Your task to perform on an android device: open app "Spotify" (install if not already installed) Image 0: 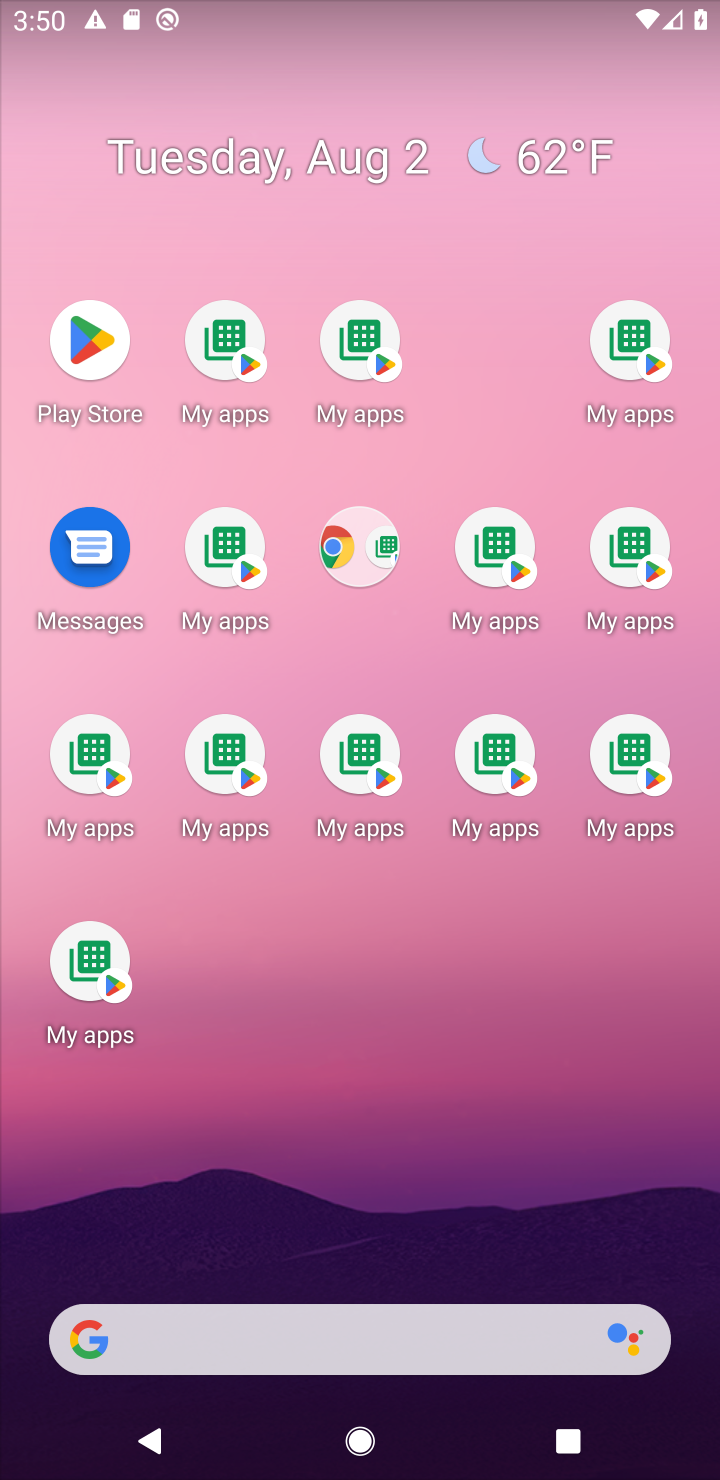
Step 0: click (31, 84)
Your task to perform on an android device: open app "Spotify" (install if not already installed) Image 1: 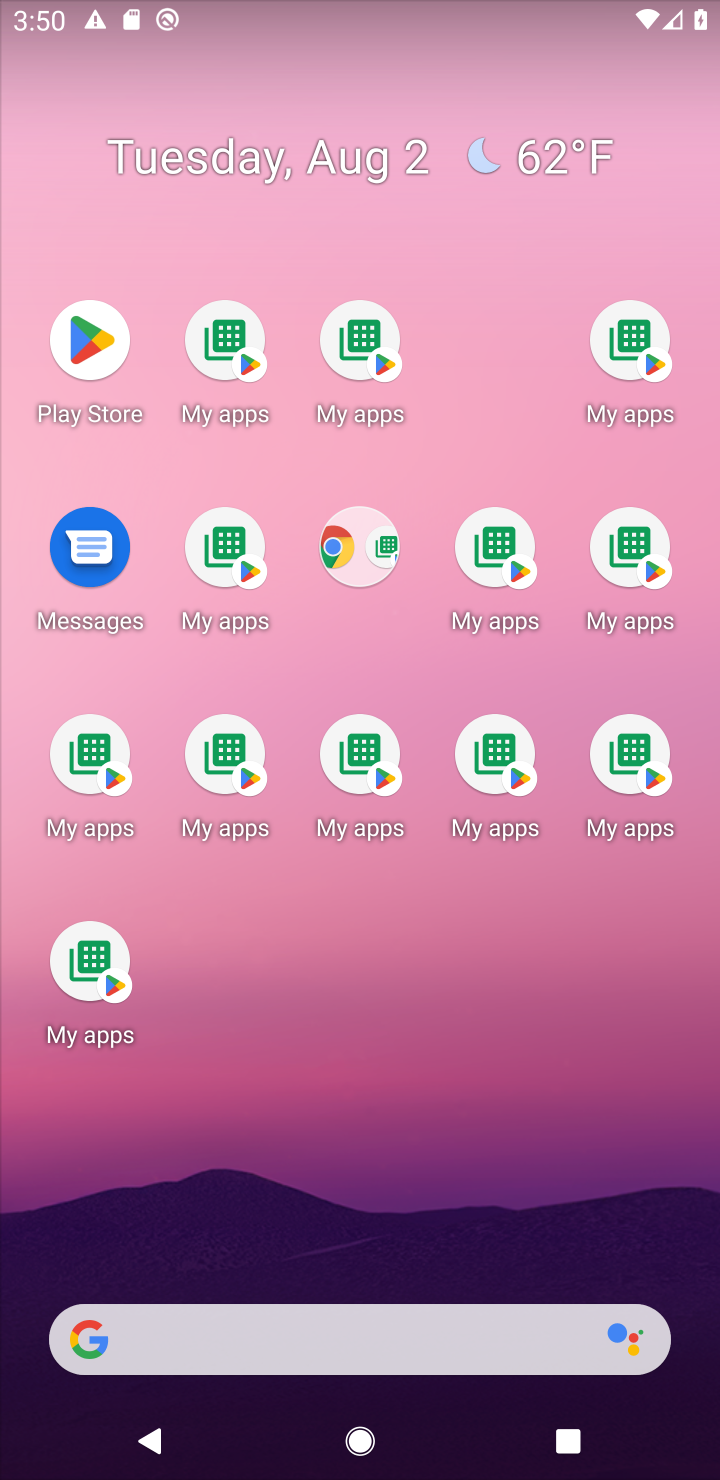
Step 1: drag from (222, 496) to (59, 456)
Your task to perform on an android device: open app "Spotify" (install if not already installed) Image 2: 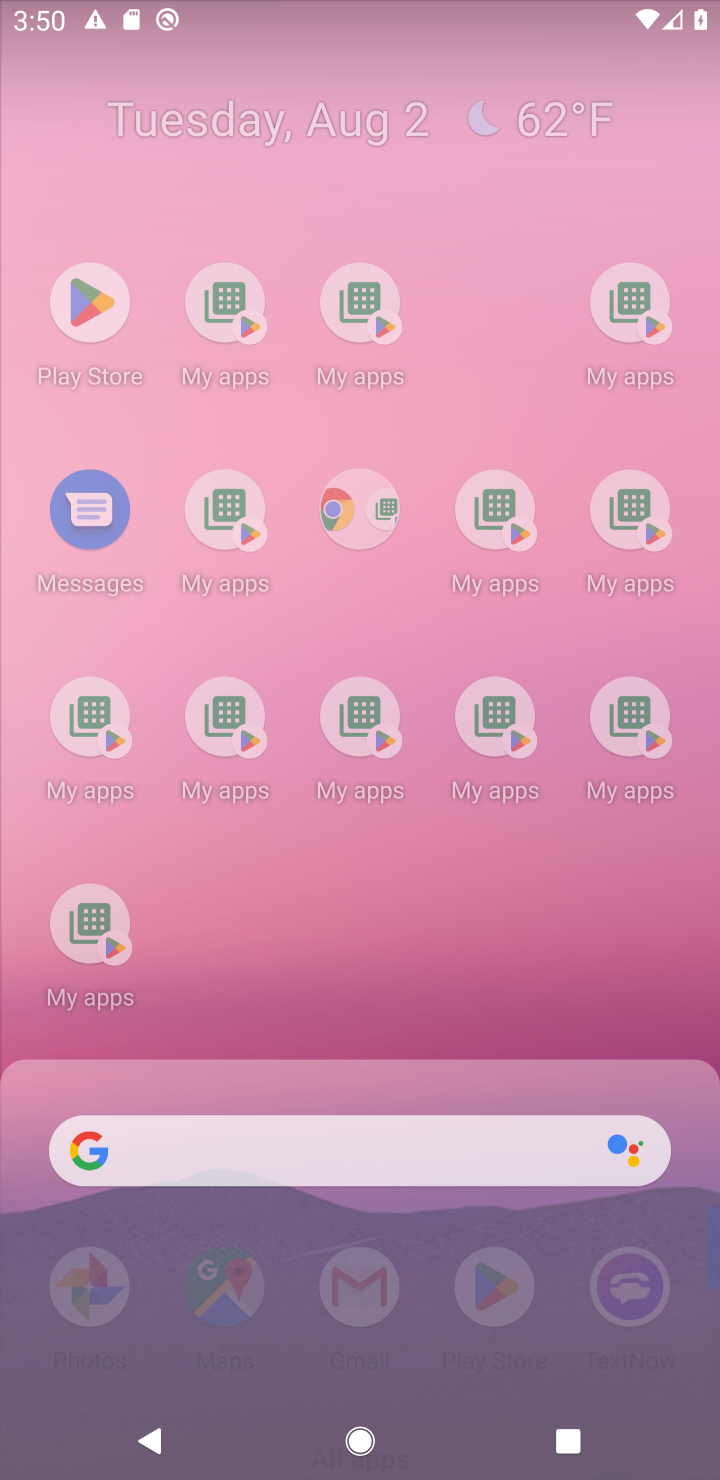
Step 2: click (208, 277)
Your task to perform on an android device: open app "Spotify" (install if not already installed) Image 3: 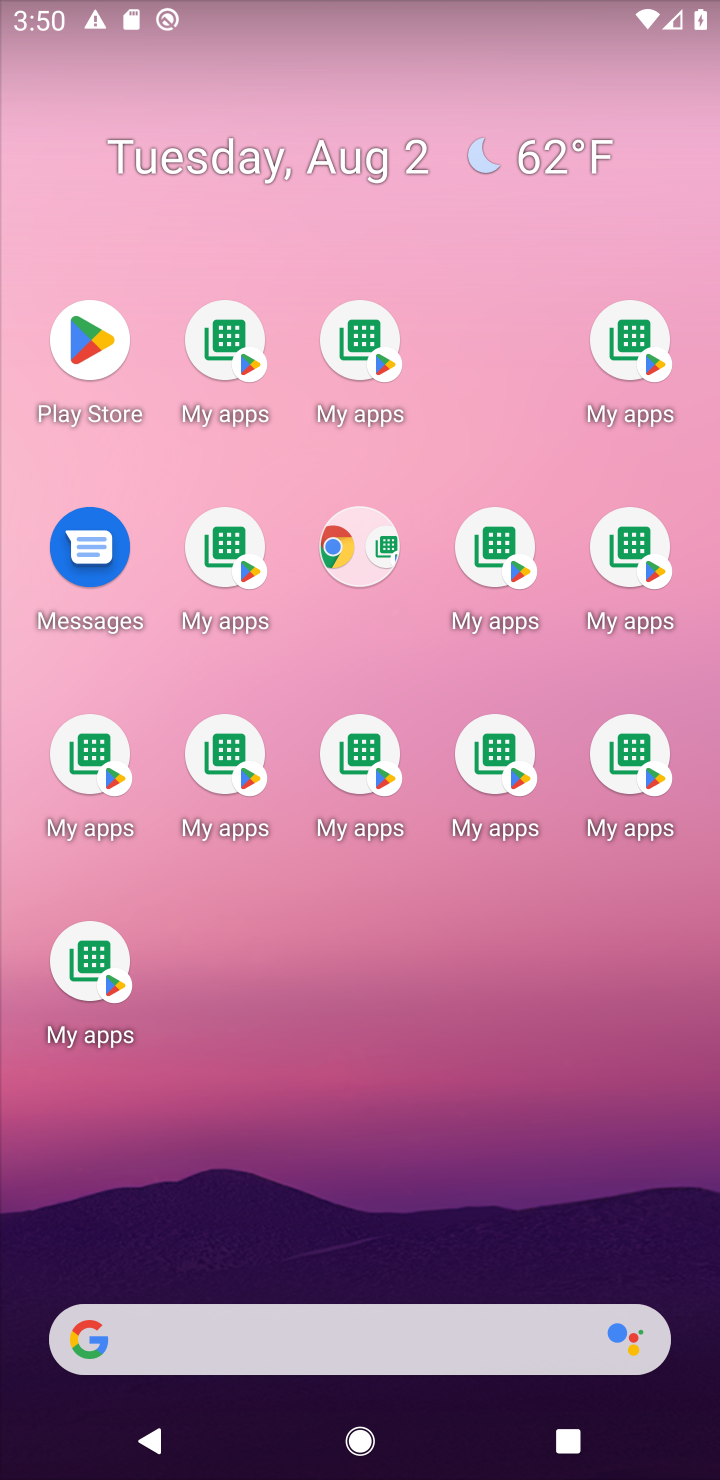
Step 3: drag from (120, 349) to (127, 437)
Your task to perform on an android device: open app "Spotify" (install if not already installed) Image 4: 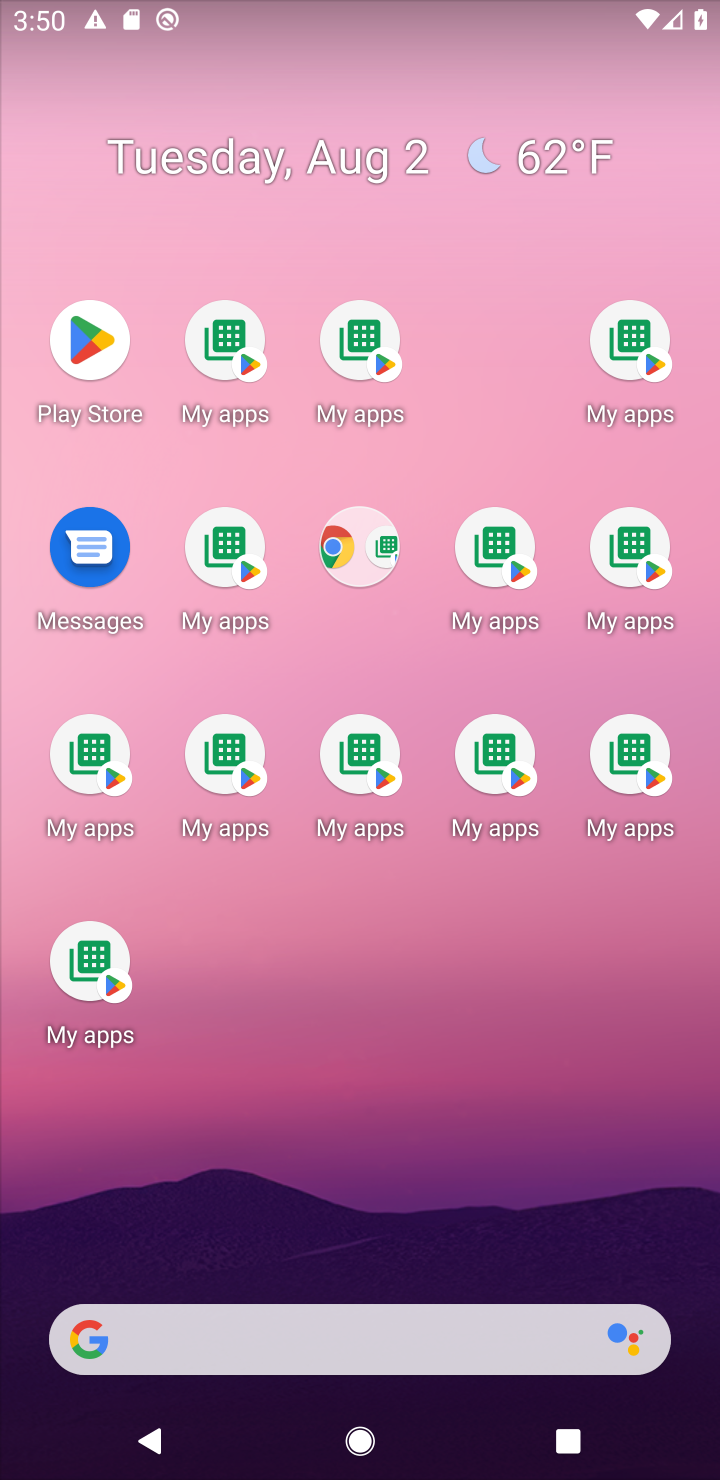
Step 4: click (108, 342)
Your task to perform on an android device: open app "Spotify" (install if not already installed) Image 5: 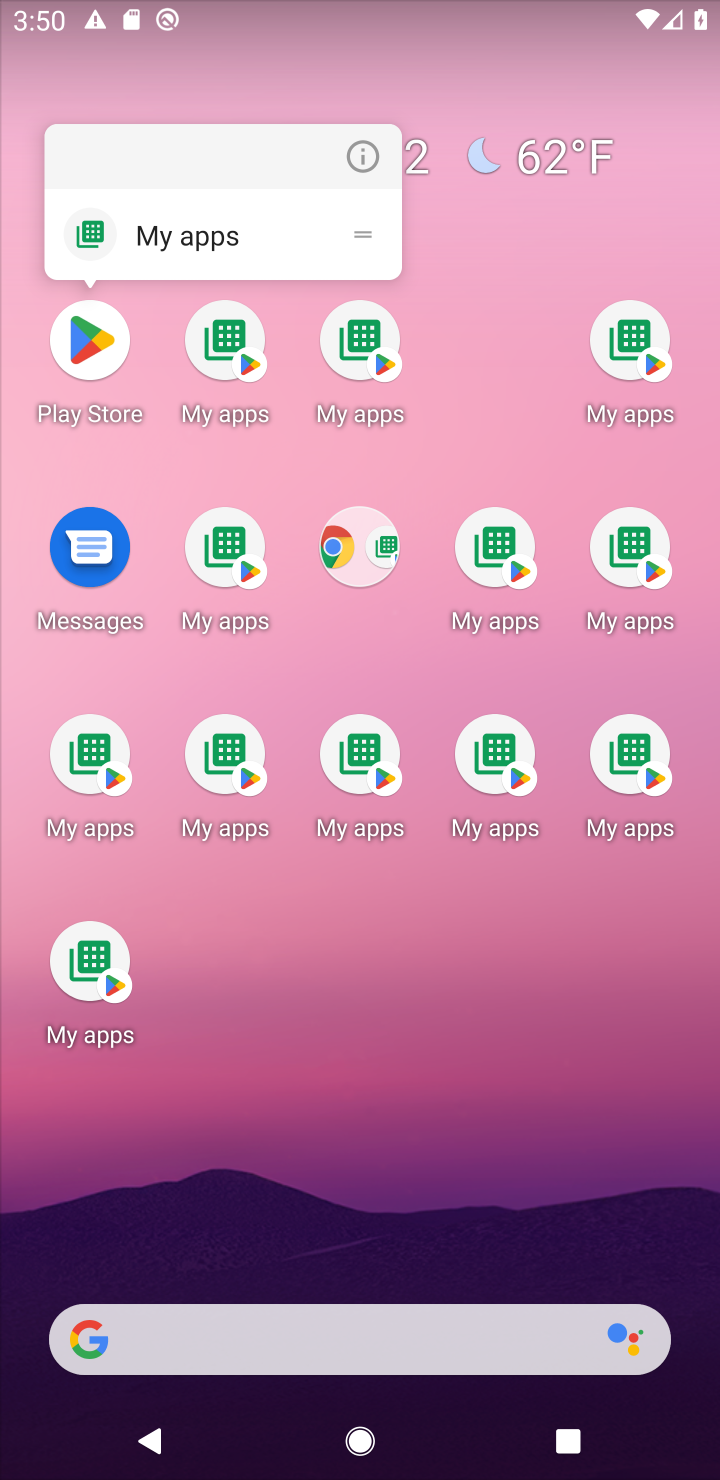
Step 5: click (64, 366)
Your task to perform on an android device: open app "Spotify" (install if not already installed) Image 6: 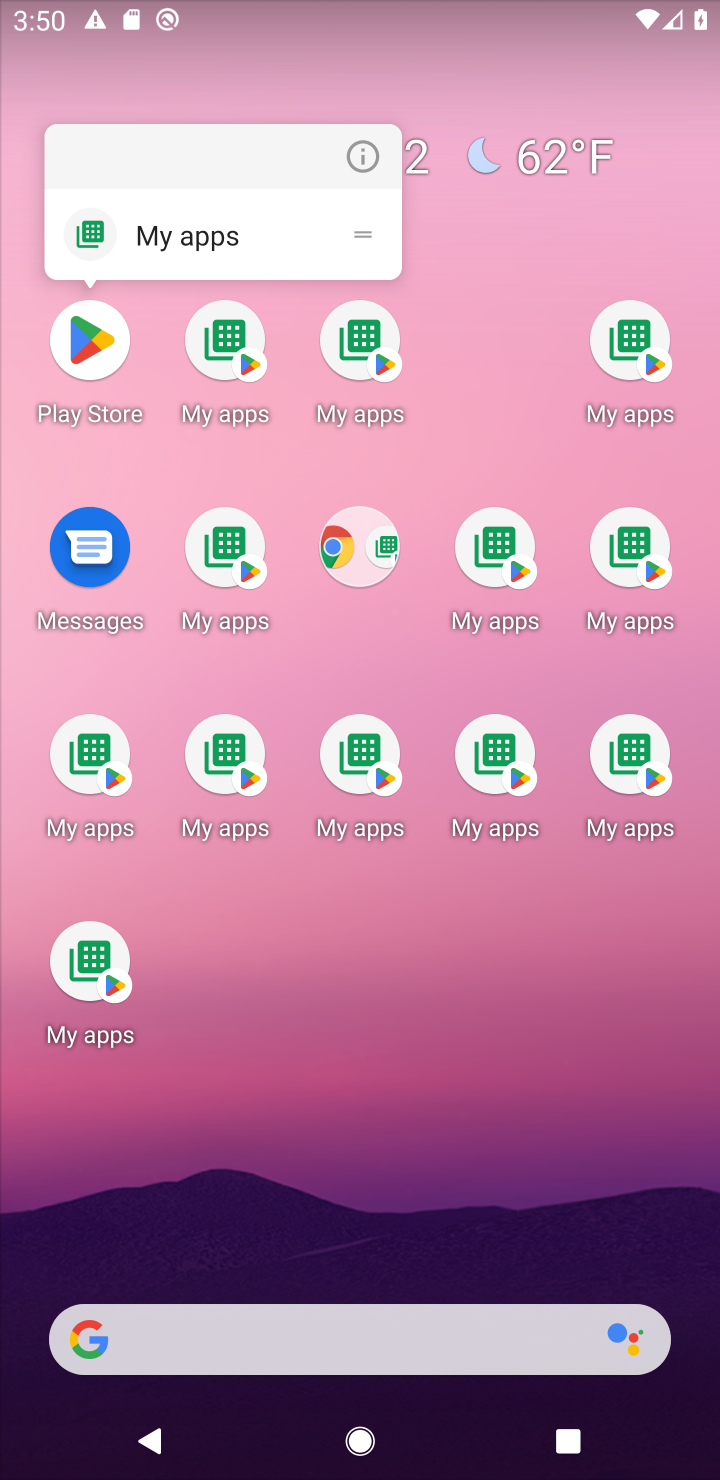
Step 6: click (68, 363)
Your task to perform on an android device: open app "Spotify" (install if not already installed) Image 7: 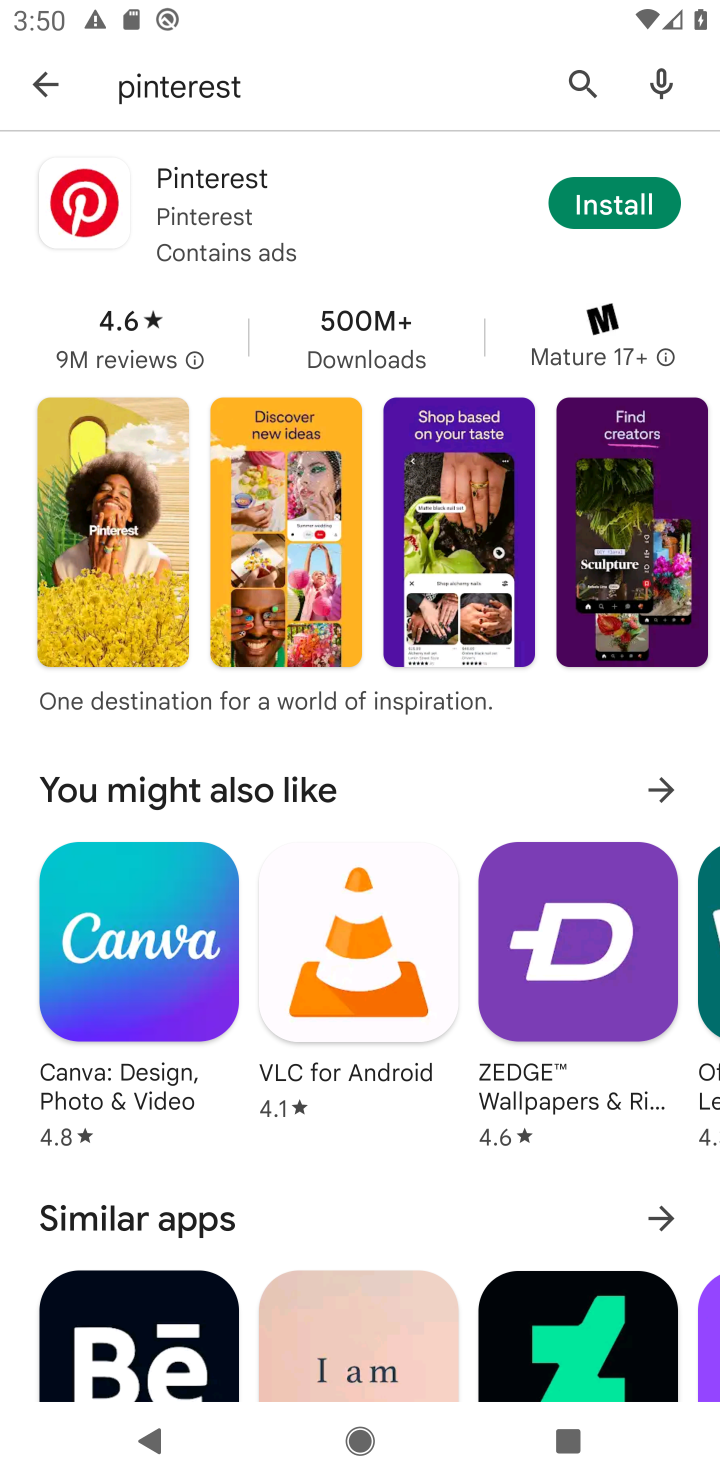
Step 7: click (563, 87)
Your task to perform on an android device: open app "Spotify" (install if not already installed) Image 8: 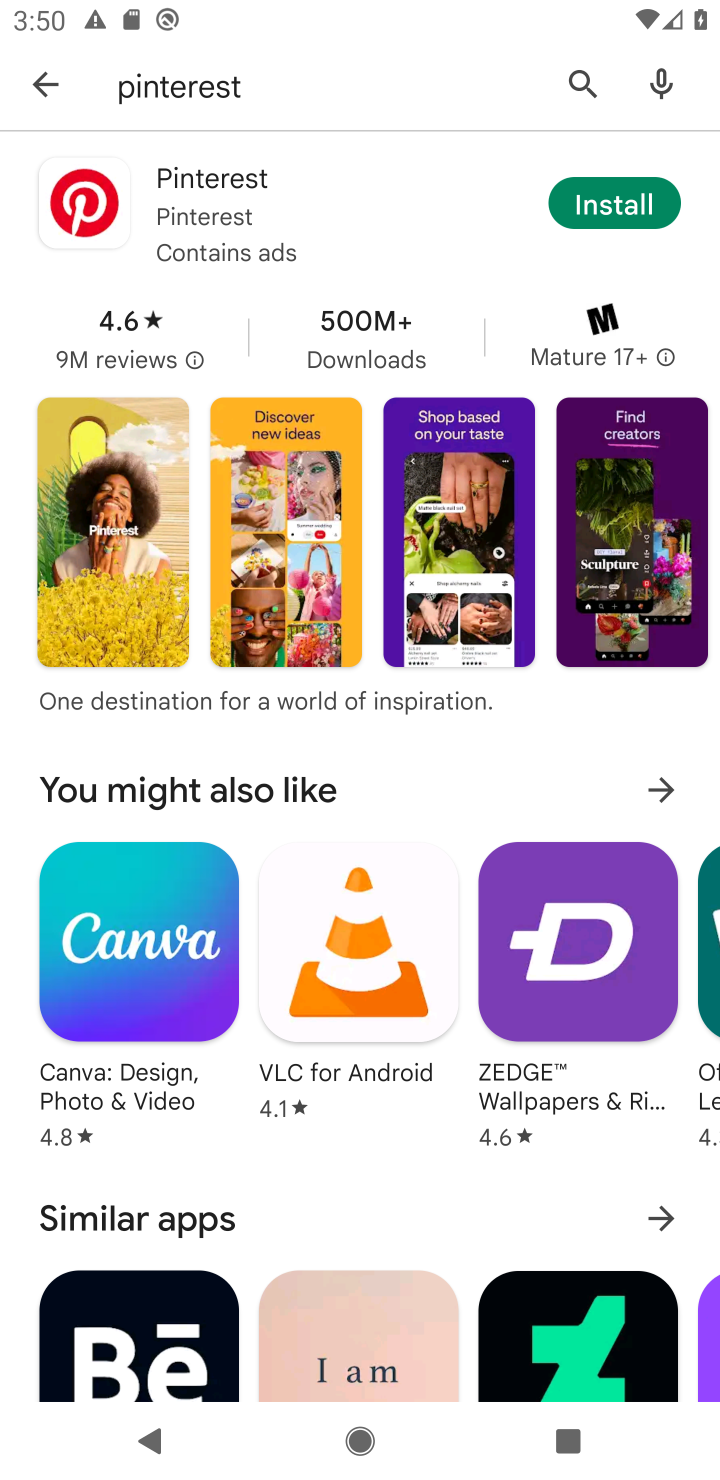
Step 8: click (576, 75)
Your task to perform on an android device: open app "Spotify" (install if not already installed) Image 9: 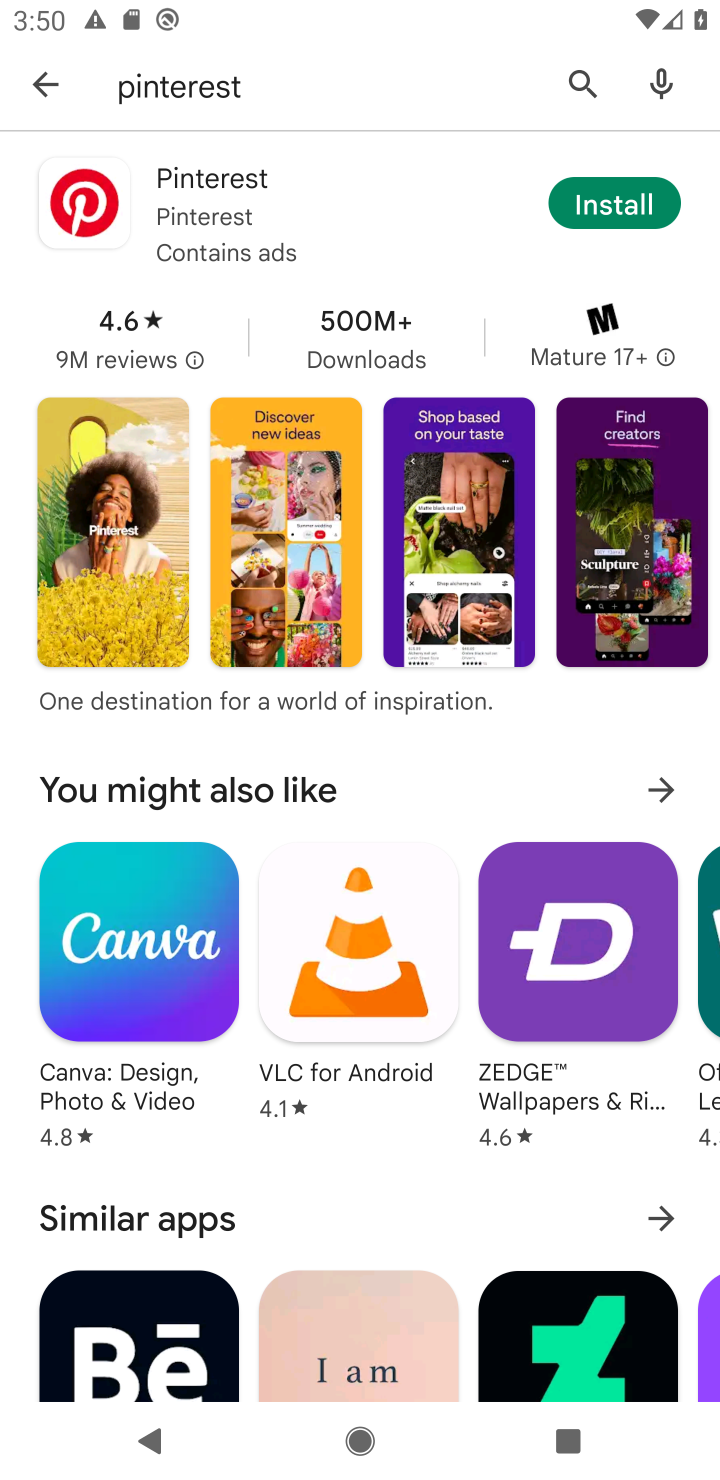
Step 9: click (559, 85)
Your task to perform on an android device: open app "Spotify" (install if not already installed) Image 10: 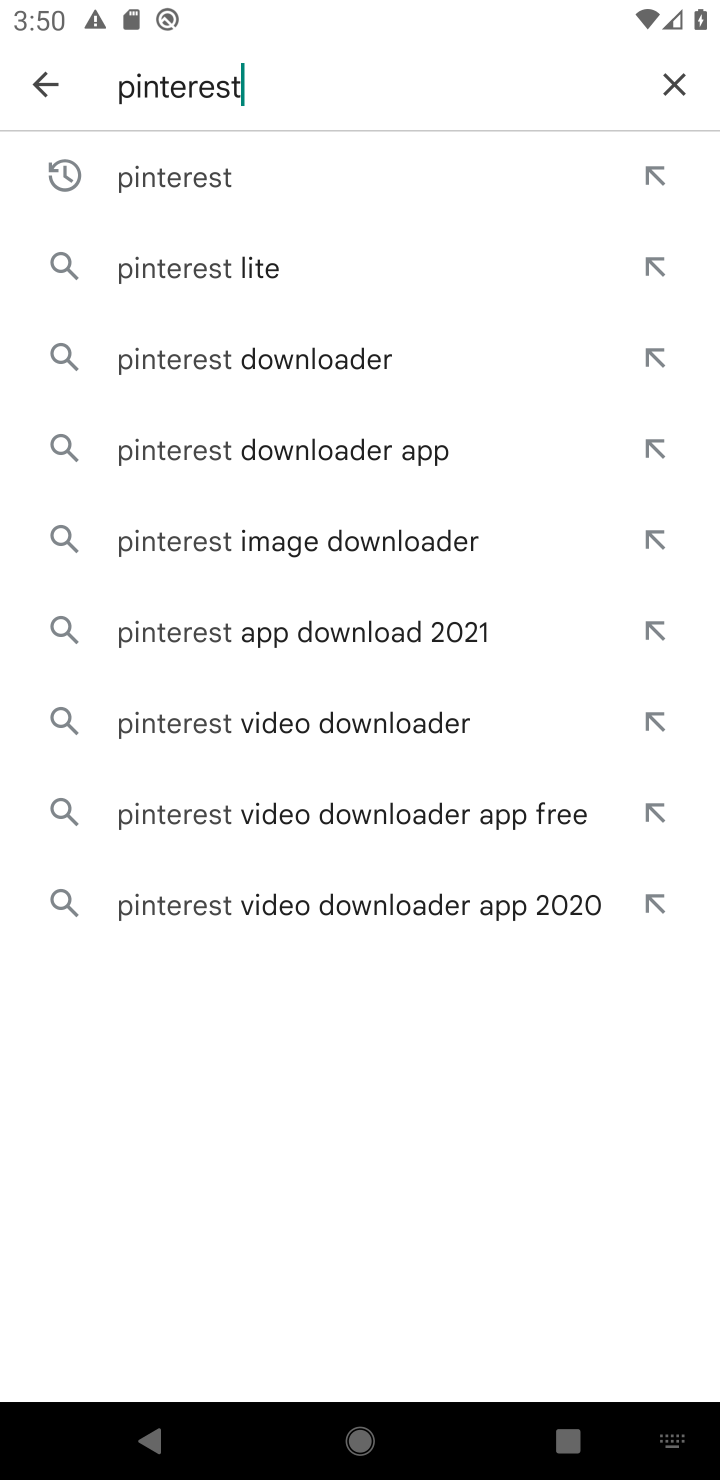
Step 10: click (559, 85)
Your task to perform on an android device: open app "Spotify" (install if not already installed) Image 11: 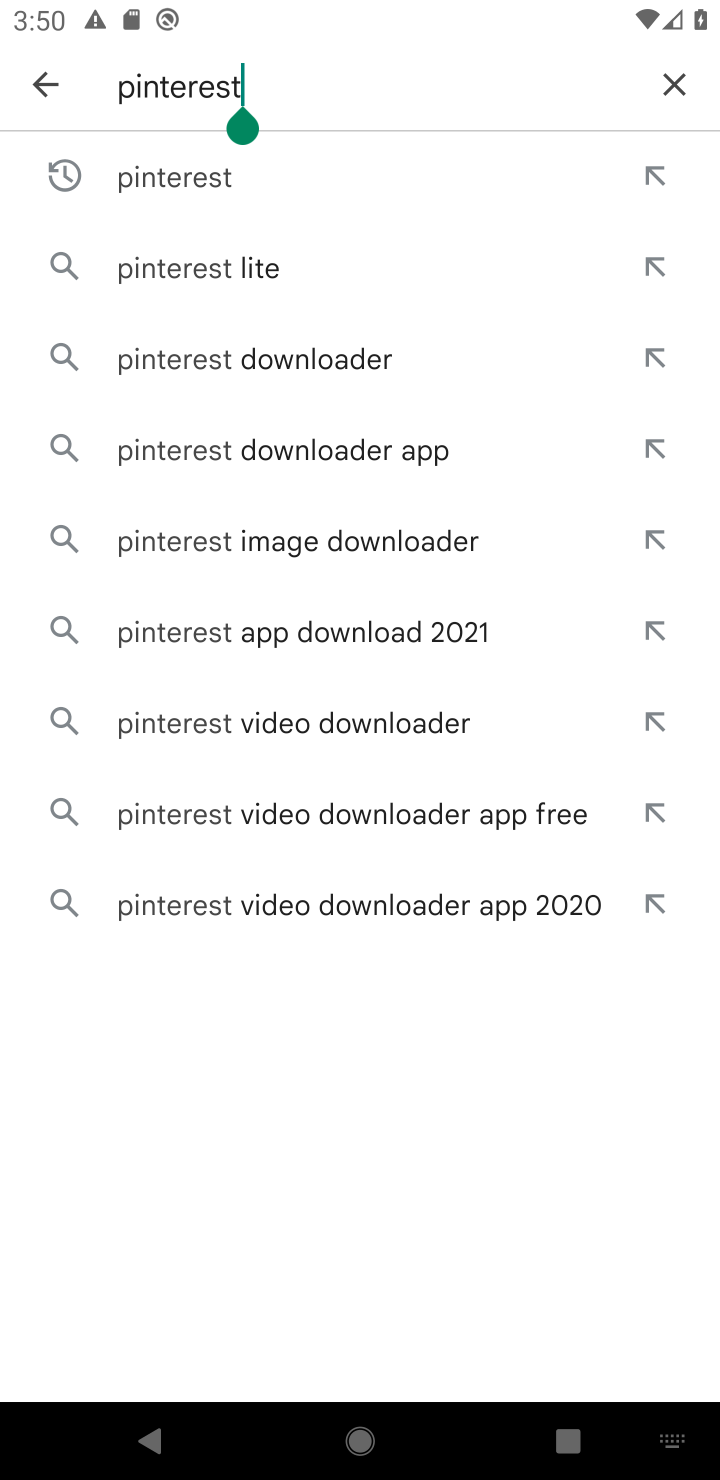
Step 11: click (688, 65)
Your task to perform on an android device: open app "Spotify" (install if not already installed) Image 12: 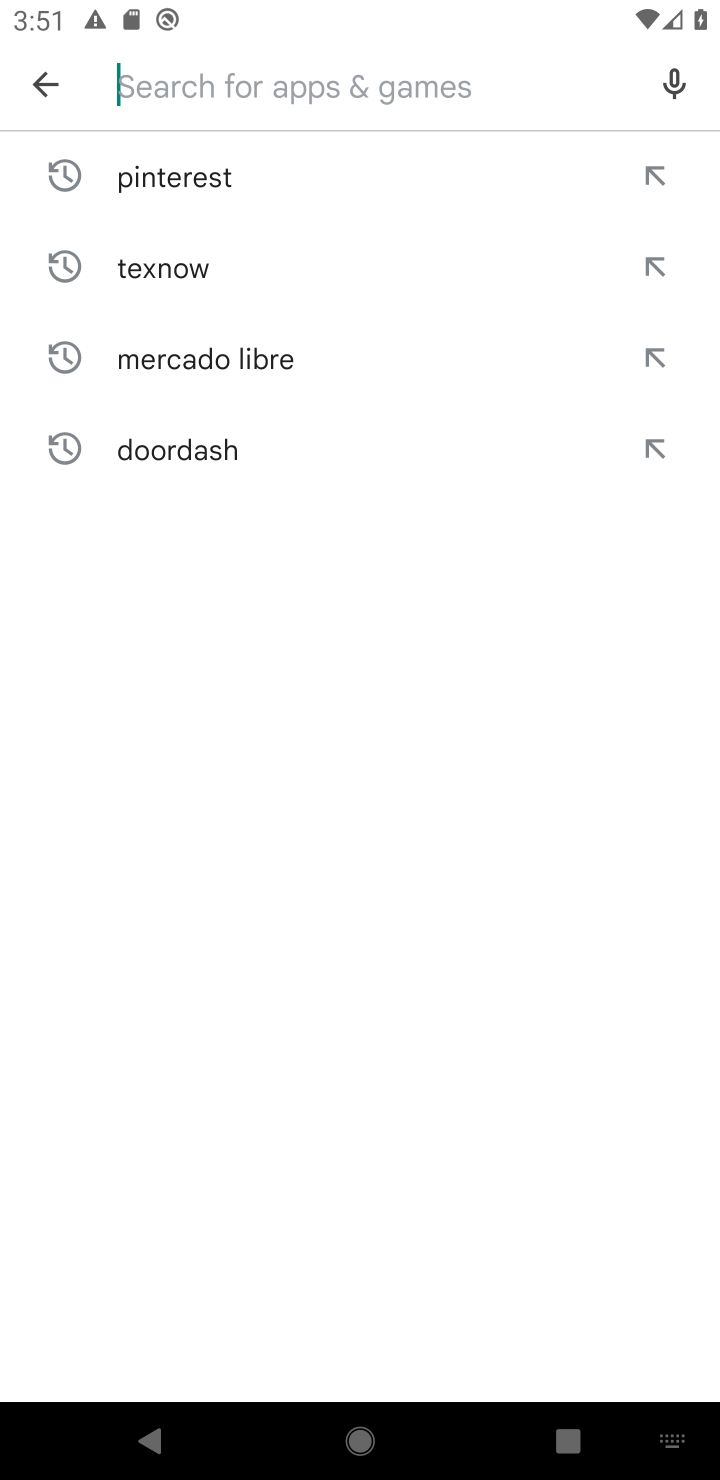
Step 12: type "spotfy"
Your task to perform on an android device: open app "Spotify" (install if not already installed) Image 13: 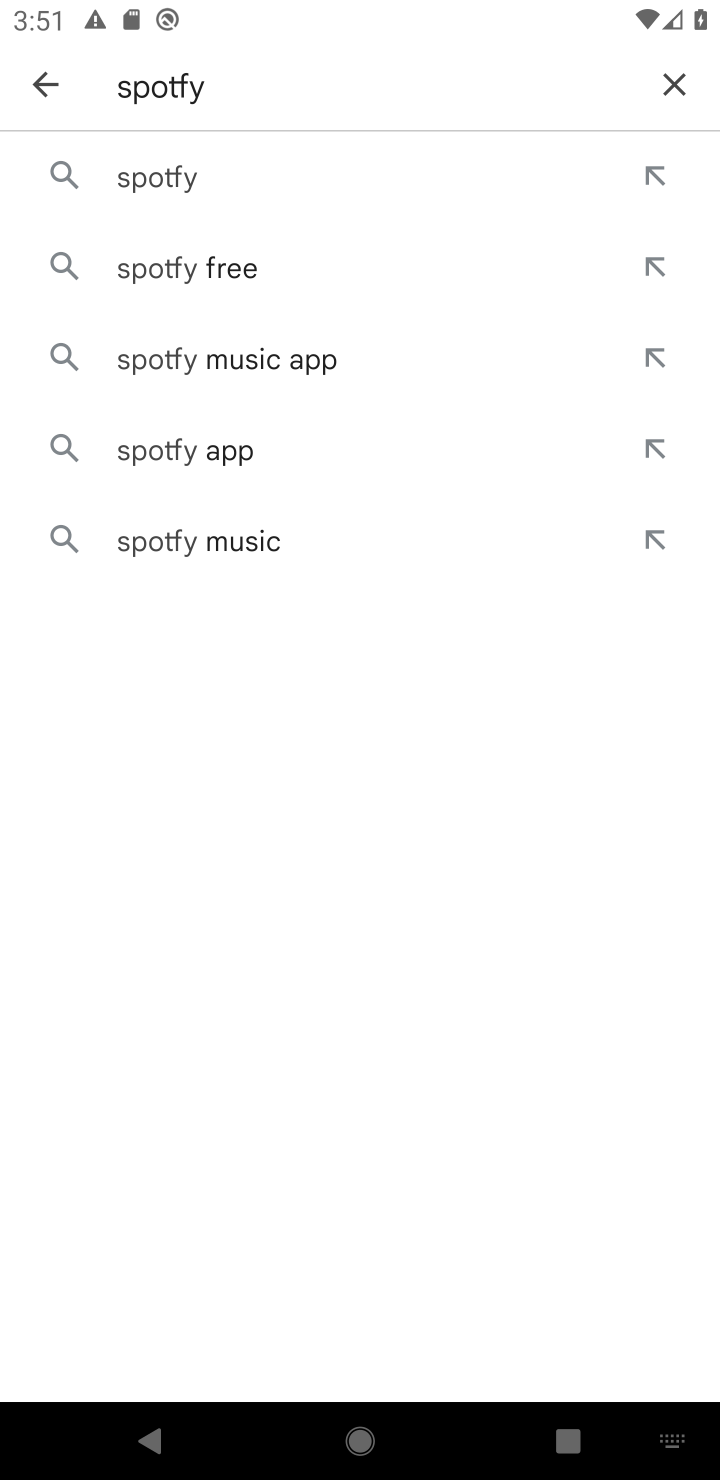
Step 13: click (177, 179)
Your task to perform on an android device: open app "Spotify" (install if not already installed) Image 14: 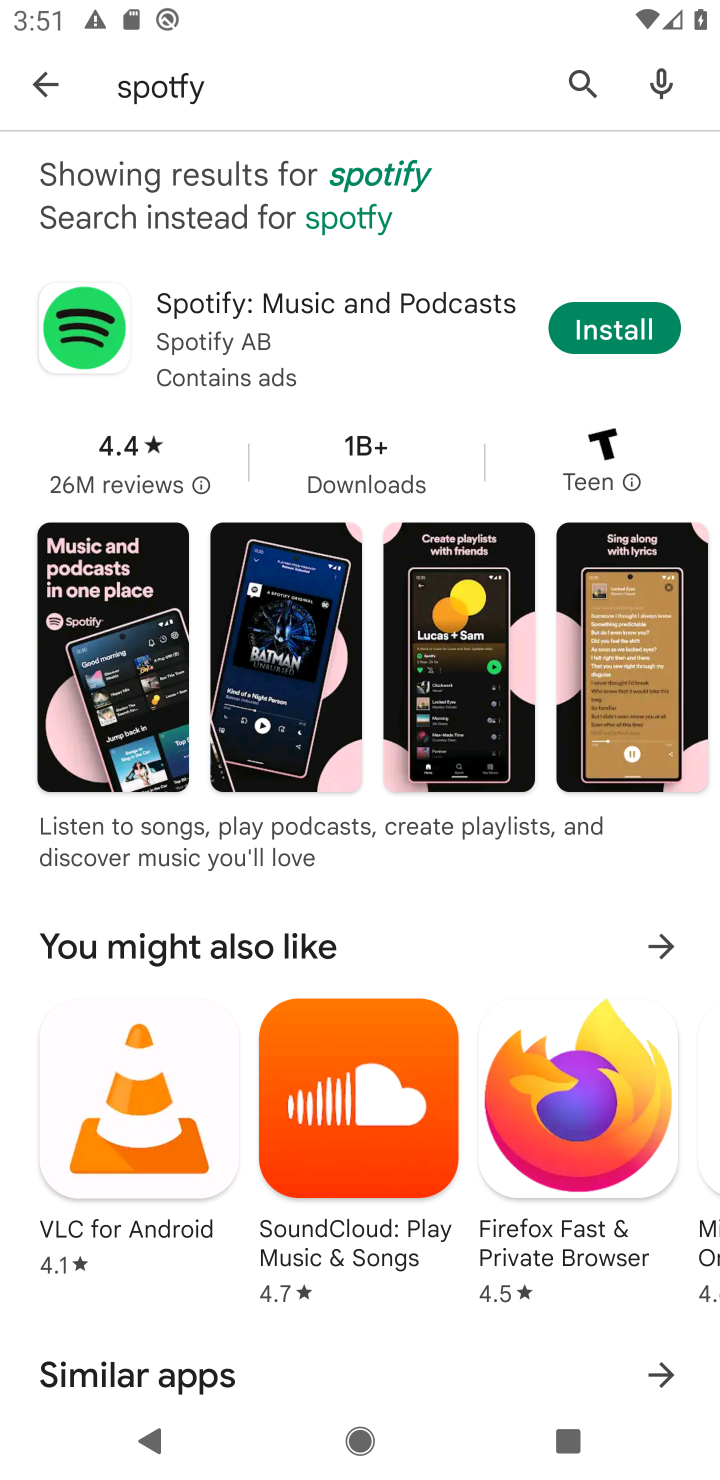
Step 14: click (629, 319)
Your task to perform on an android device: open app "Spotify" (install if not already installed) Image 15: 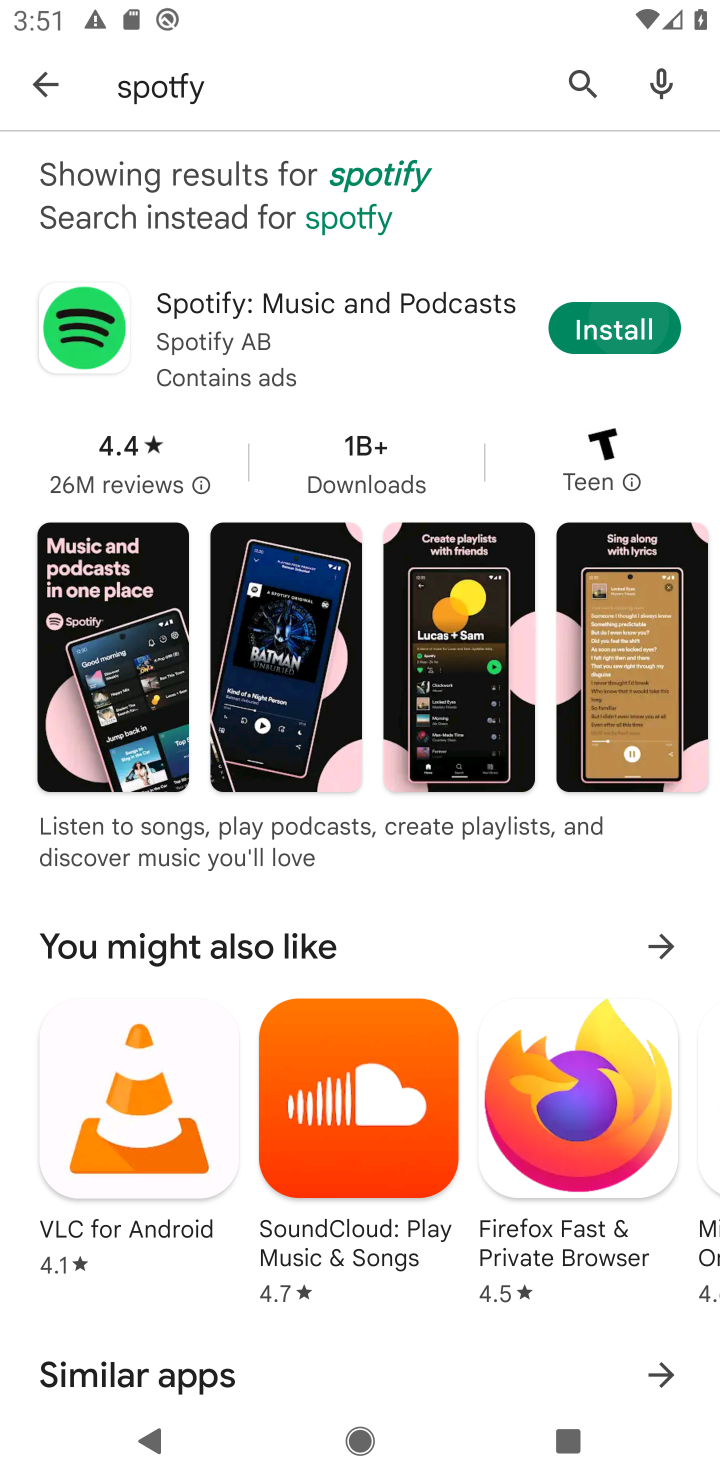
Step 15: click (651, 315)
Your task to perform on an android device: open app "Spotify" (install if not already installed) Image 16: 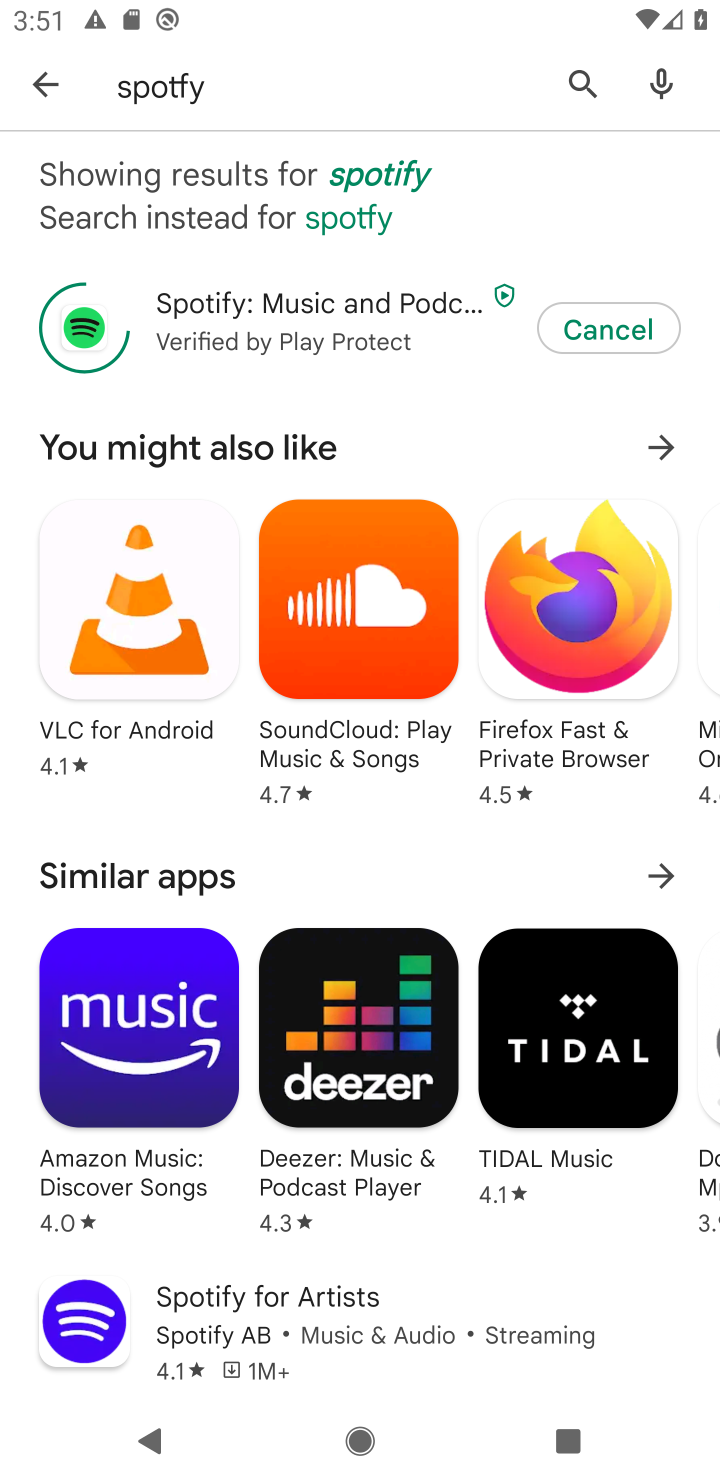
Step 16: click (640, 313)
Your task to perform on an android device: open app "Spotify" (install if not already installed) Image 17: 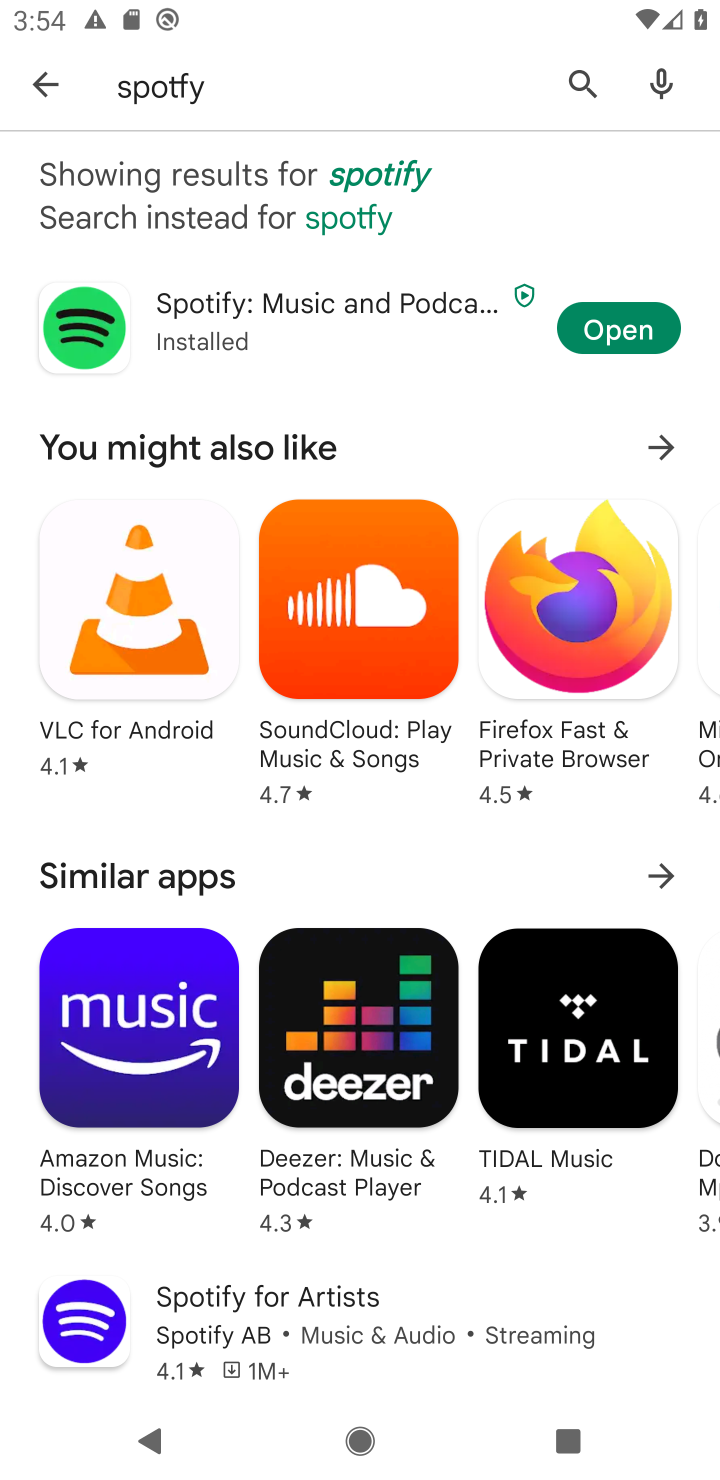
Step 17: drag from (631, 316) to (718, 322)
Your task to perform on an android device: open app "Spotify" (install if not already installed) Image 18: 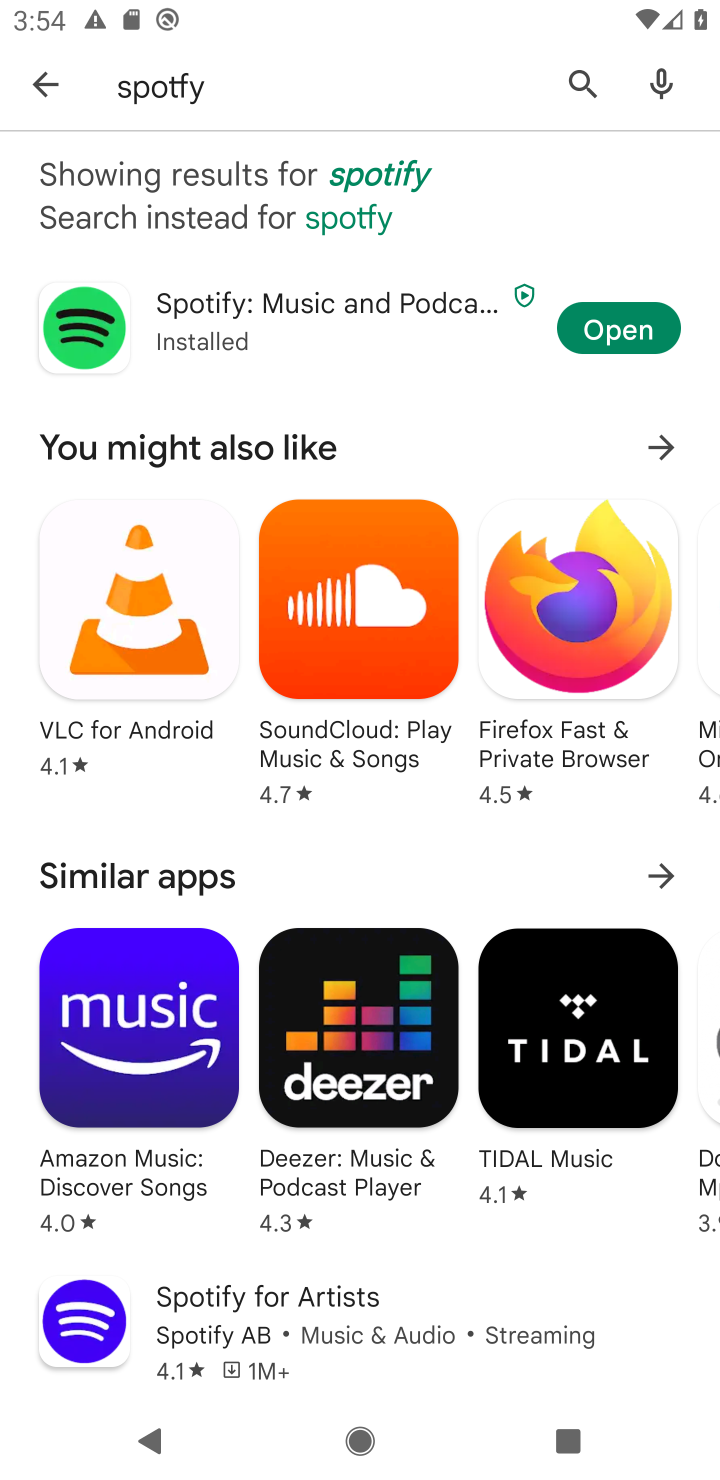
Step 18: click (634, 318)
Your task to perform on an android device: open app "Spotify" (install if not already installed) Image 19: 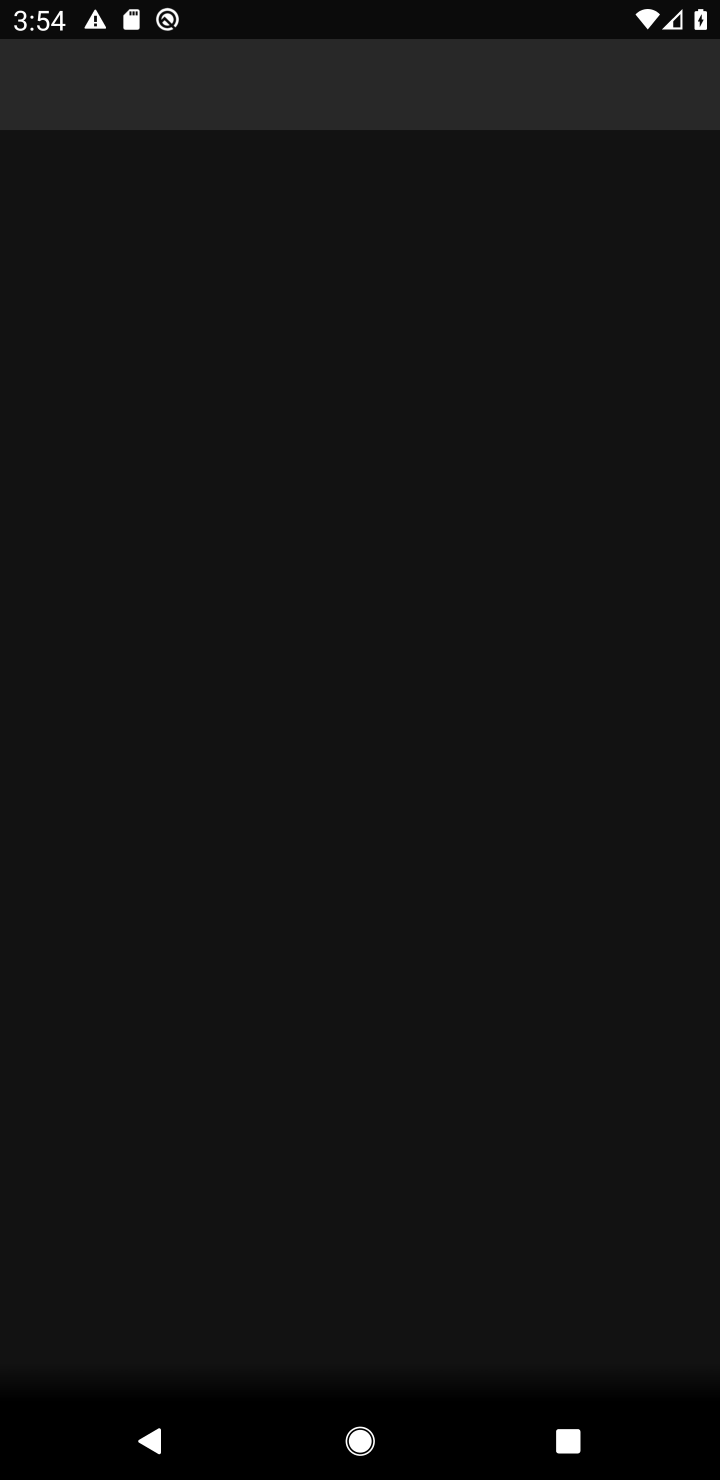
Step 19: task complete